Your task to perform on an android device: turn off priority inbox in the gmail app Image 0: 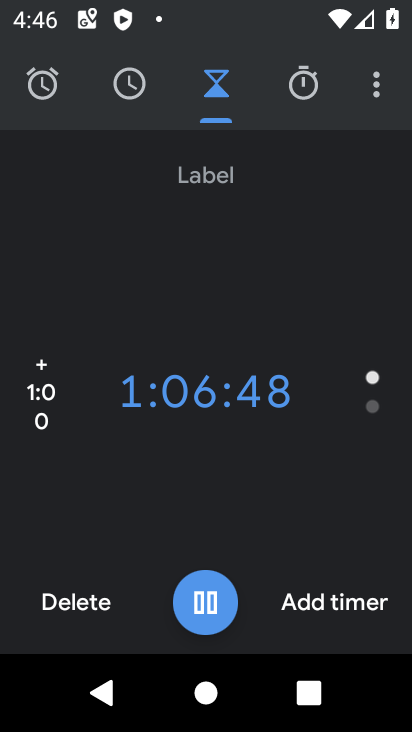
Step 0: press home button
Your task to perform on an android device: turn off priority inbox in the gmail app Image 1: 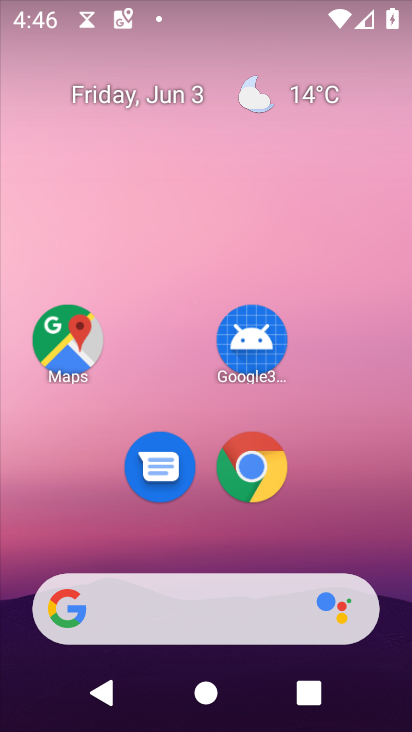
Step 1: drag from (330, 514) to (359, 99)
Your task to perform on an android device: turn off priority inbox in the gmail app Image 2: 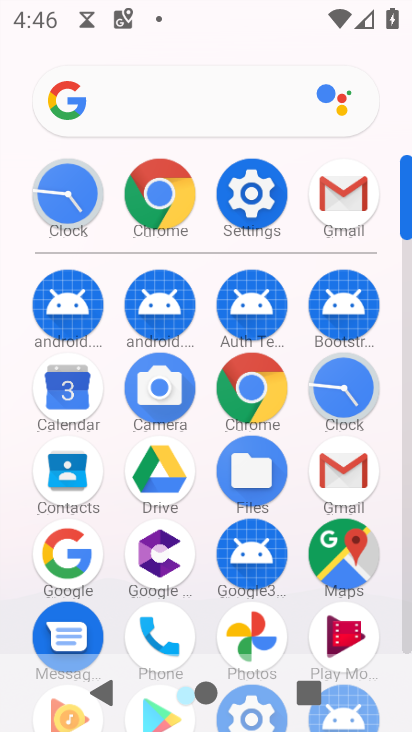
Step 2: click (351, 212)
Your task to perform on an android device: turn off priority inbox in the gmail app Image 3: 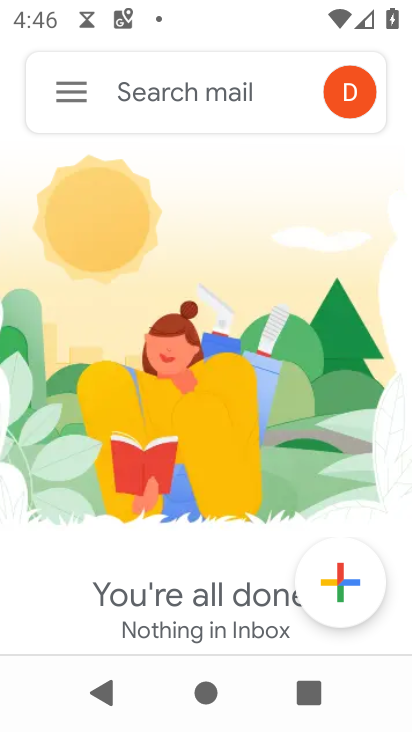
Step 3: click (79, 111)
Your task to perform on an android device: turn off priority inbox in the gmail app Image 4: 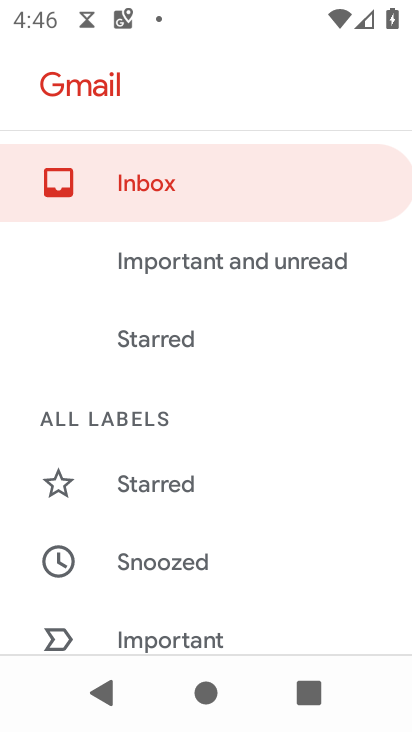
Step 4: drag from (232, 525) to (251, 95)
Your task to perform on an android device: turn off priority inbox in the gmail app Image 5: 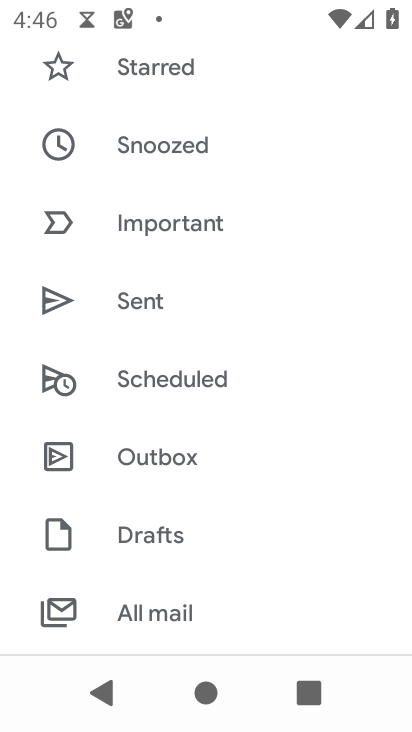
Step 5: drag from (234, 505) to (237, 95)
Your task to perform on an android device: turn off priority inbox in the gmail app Image 6: 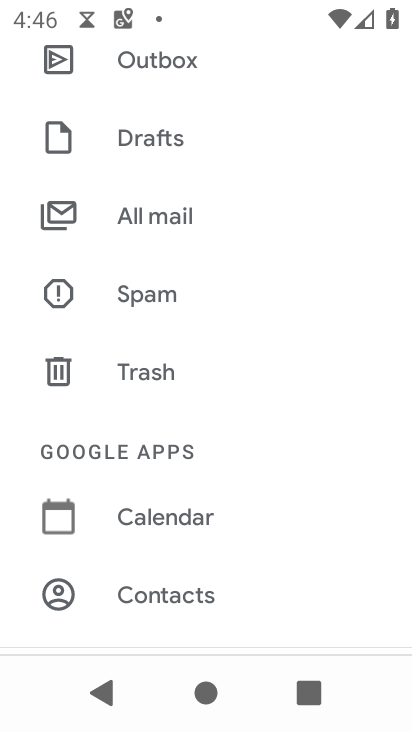
Step 6: click (221, 125)
Your task to perform on an android device: turn off priority inbox in the gmail app Image 7: 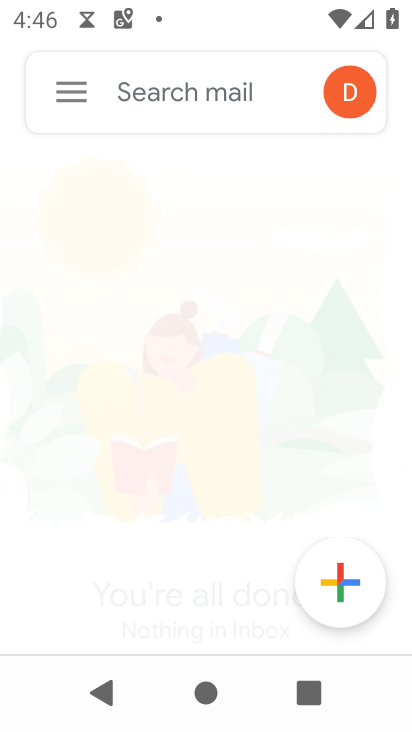
Step 7: drag from (209, 597) to (249, 195)
Your task to perform on an android device: turn off priority inbox in the gmail app Image 8: 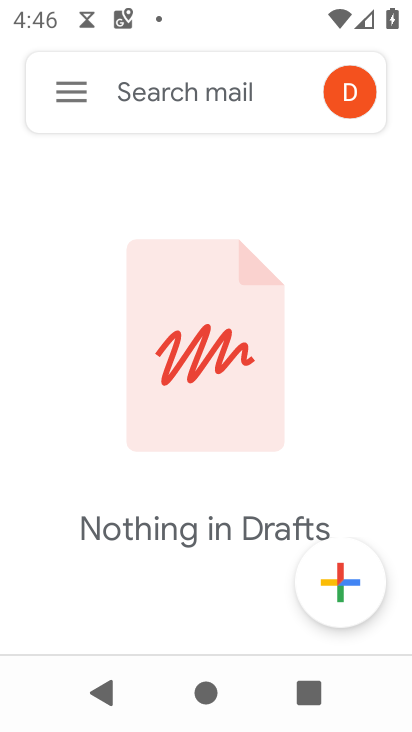
Step 8: click (85, 97)
Your task to perform on an android device: turn off priority inbox in the gmail app Image 9: 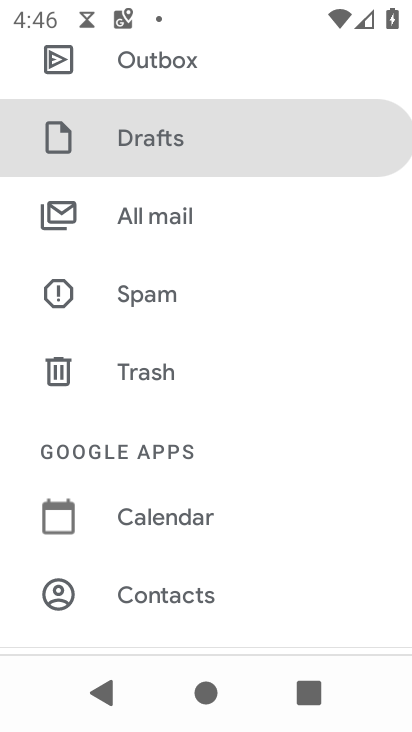
Step 9: drag from (157, 535) to (218, 99)
Your task to perform on an android device: turn off priority inbox in the gmail app Image 10: 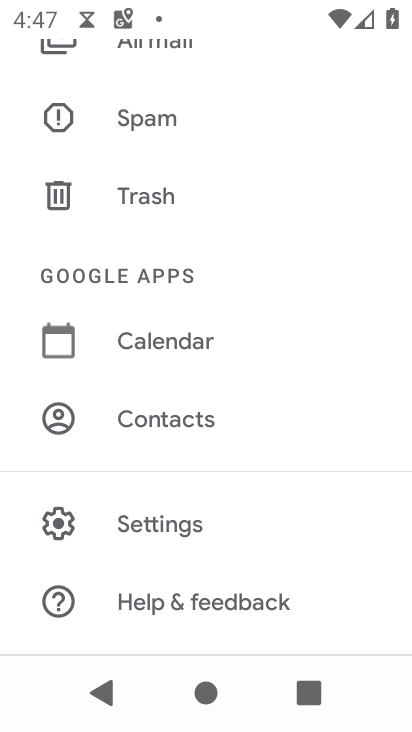
Step 10: click (218, 501)
Your task to perform on an android device: turn off priority inbox in the gmail app Image 11: 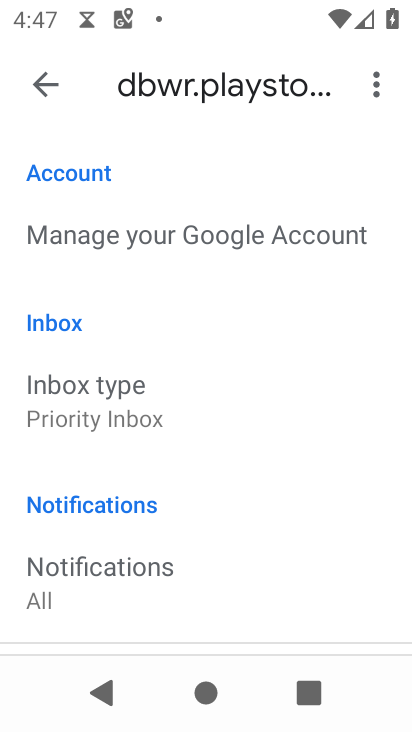
Step 11: click (115, 422)
Your task to perform on an android device: turn off priority inbox in the gmail app Image 12: 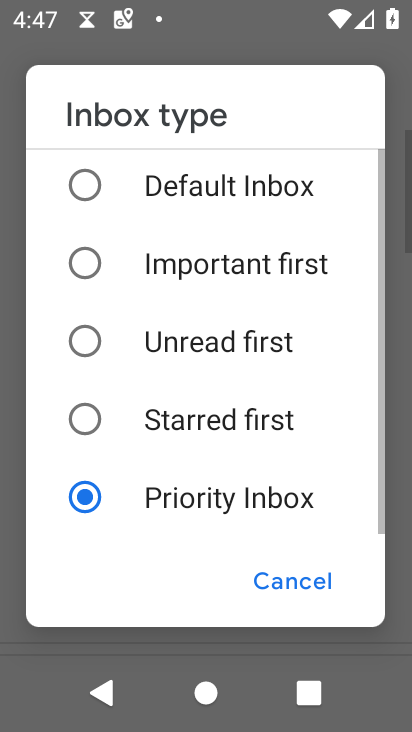
Step 12: click (108, 413)
Your task to perform on an android device: turn off priority inbox in the gmail app Image 13: 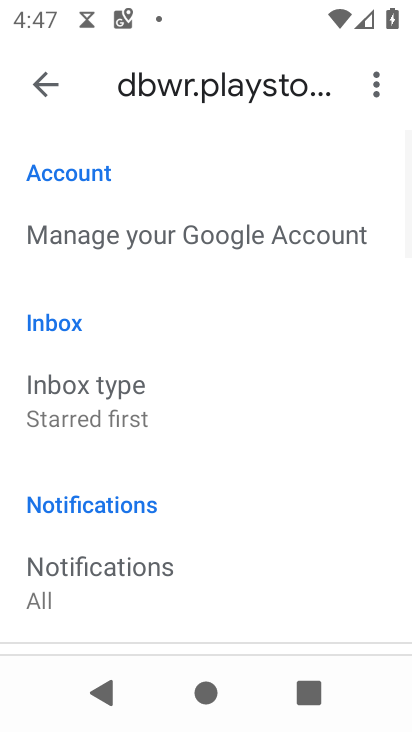
Step 13: task complete